Your task to perform on an android device: Open Android settings Image 0: 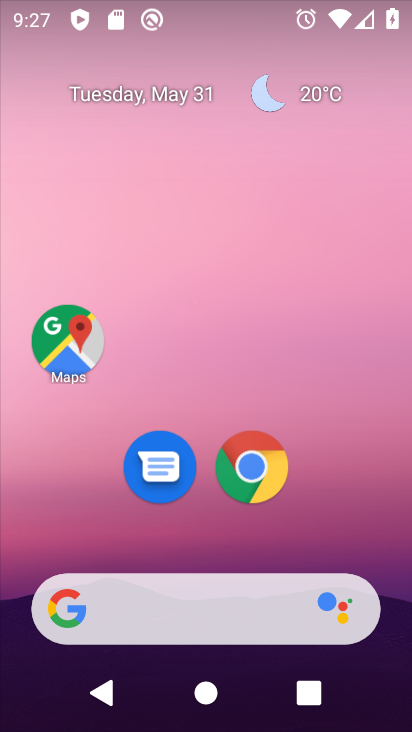
Step 0: drag from (206, 524) to (318, 81)
Your task to perform on an android device: Open Android settings Image 1: 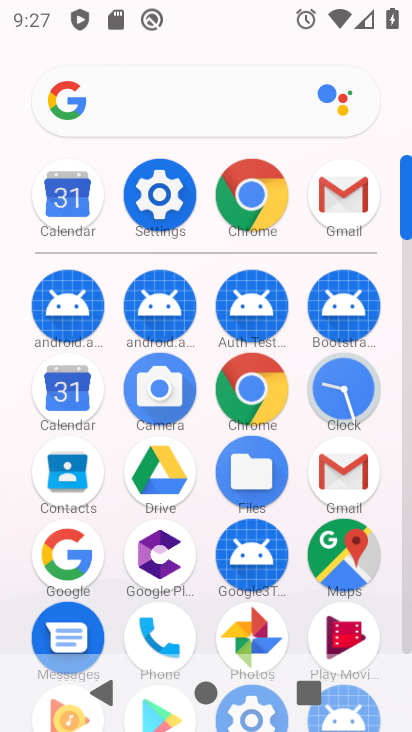
Step 1: click (149, 197)
Your task to perform on an android device: Open Android settings Image 2: 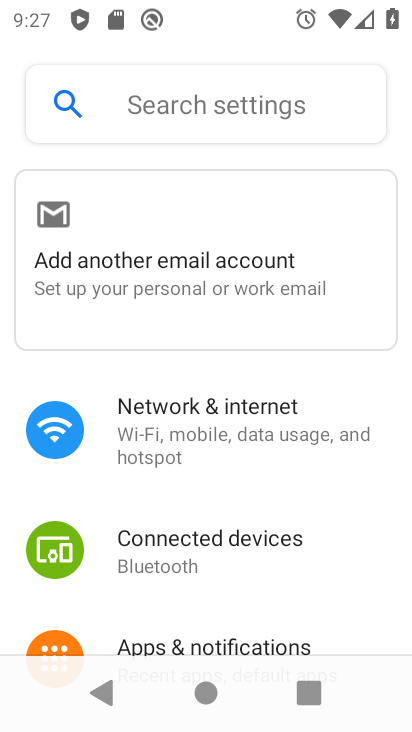
Step 2: drag from (231, 600) to (263, 11)
Your task to perform on an android device: Open Android settings Image 3: 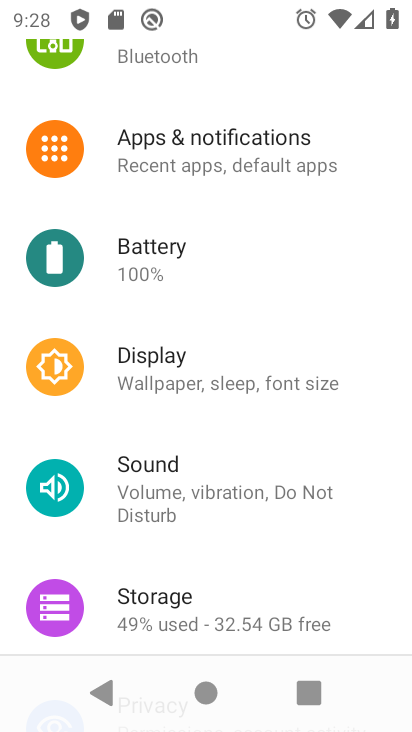
Step 3: drag from (266, 432) to (321, 173)
Your task to perform on an android device: Open Android settings Image 4: 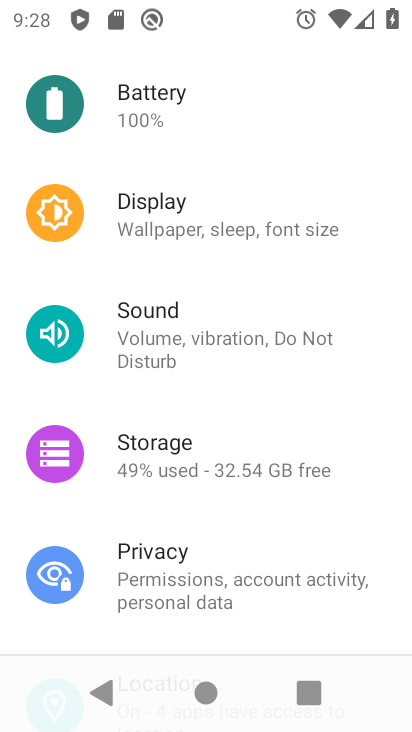
Step 4: drag from (215, 564) to (302, 11)
Your task to perform on an android device: Open Android settings Image 5: 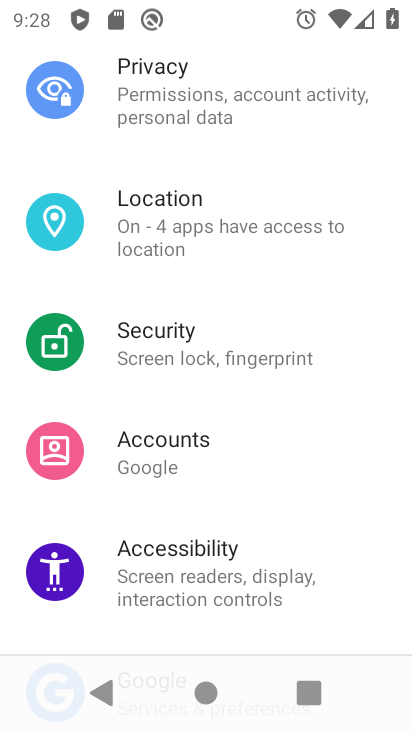
Step 5: drag from (210, 538) to (265, 133)
Your task to perform on an android device: Open Android settings Image 6: 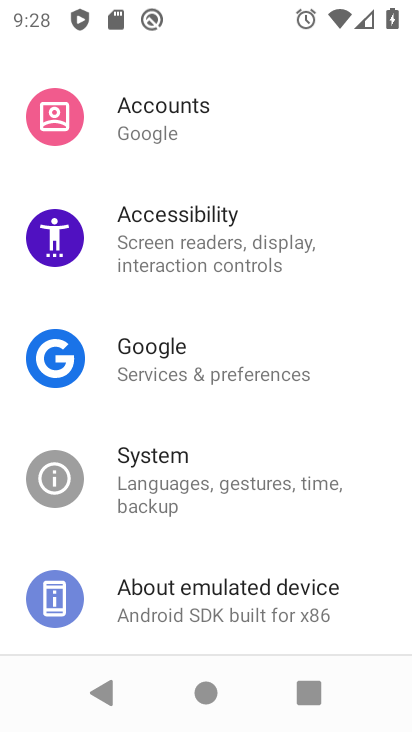
Step 6: click (200, 577)
Your task to perform on an android device: Open Android settings Image 7: 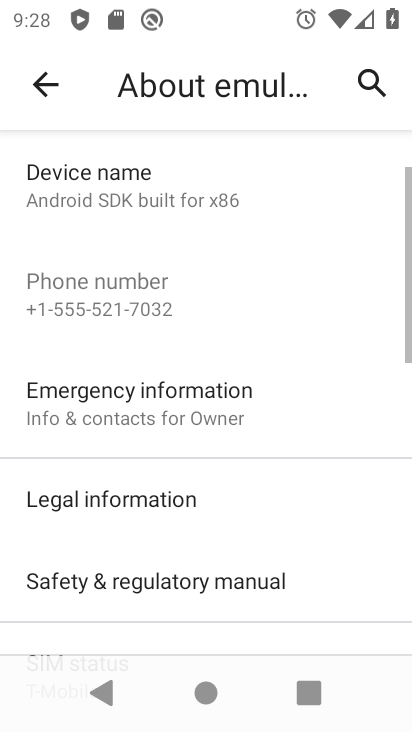
Step 7: drag from (212, 555) to (269, 240)
Your task to perform on an android device: Open Android settings Image 8: 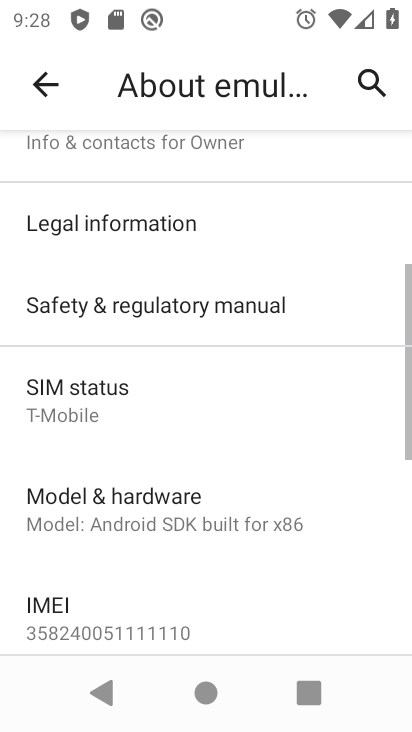
Step 8: drag from (184, 550) to (276, 227)
Your task to perform on an android device: Open Android settings Image 9: 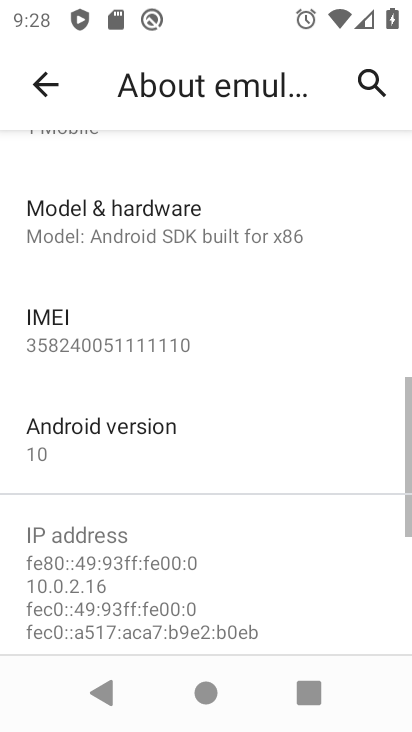
Step 9: click (141, 444)
Your task to perform on an android device: Open Android settings Image 10: 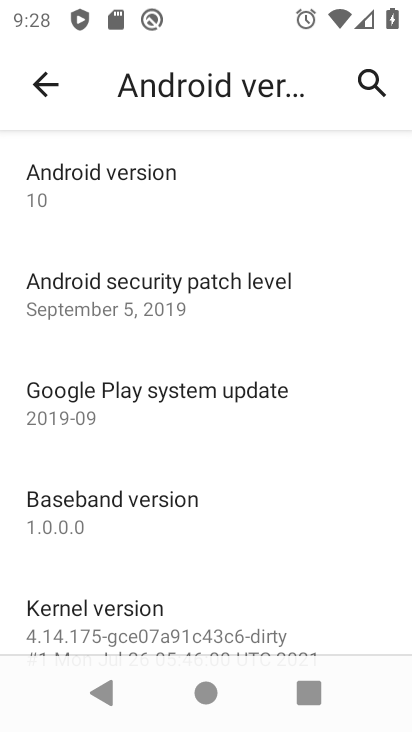
Step 10: click (130, 196)
Your task to perform on an android device: Open Android settings Image 11: 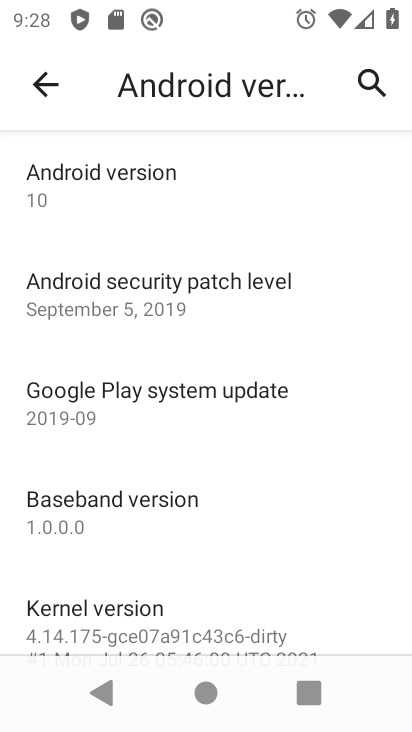
Step 11: task complete